Your task to perform on an android device: change the clock display to digital Image 0: 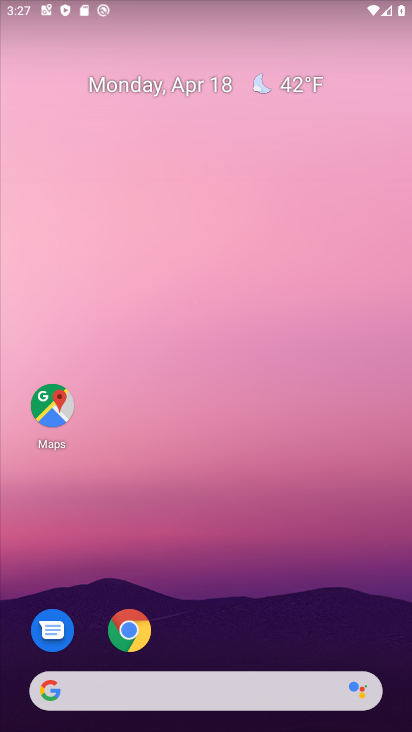
Step 0: drag from (265, 601) to (241, 216)
Your task to perform on an android device: change the clock display to digital Image 1: 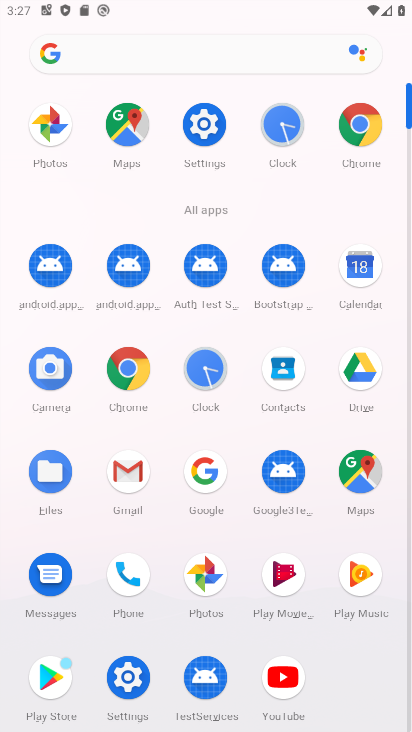
Step 1: click (288, 139)
Your task to perform on an android device: change the clock display to digital Image 2: 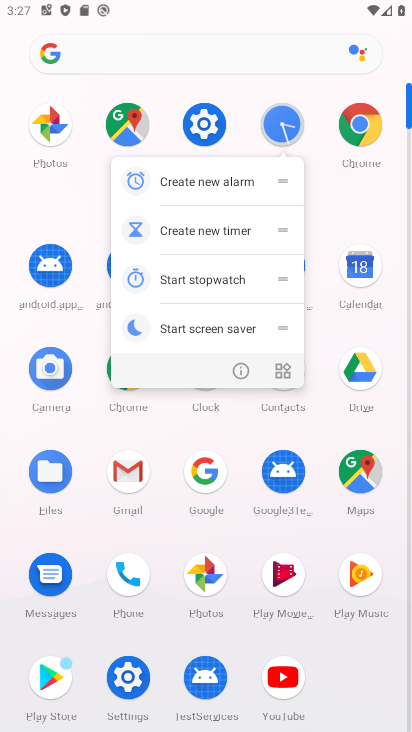
Step 2: click (278, 124)
Your task to perform on an android device: change the clock display to digital Image 3: 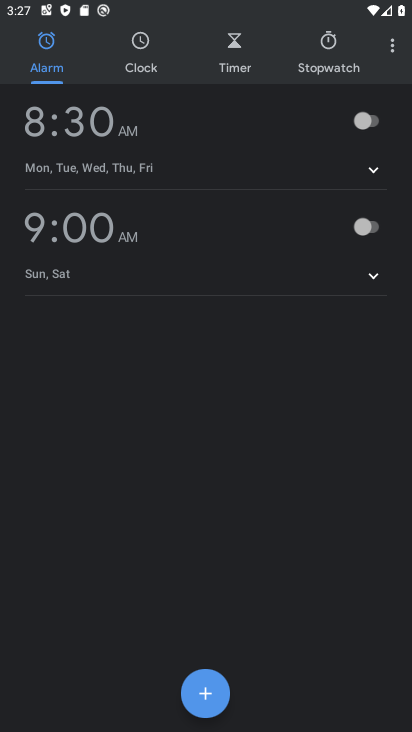
Step 3: click (394, 49)
Your task to perform on an android device: change the clock display to digital Image 4: 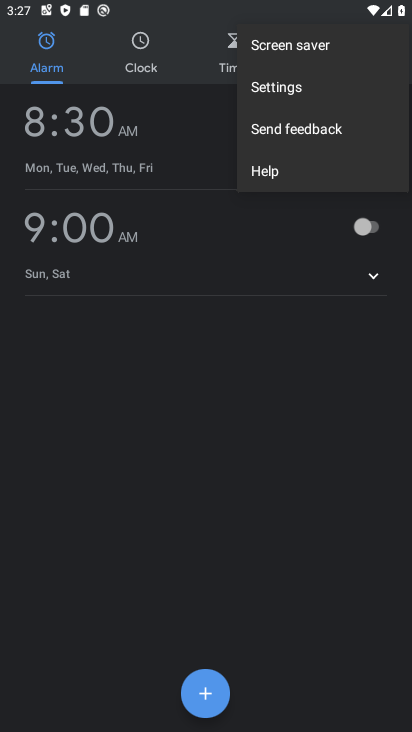
Step 4: click (294, 86)
Your task to perform on an android device: change the clock display to digital Image 5: 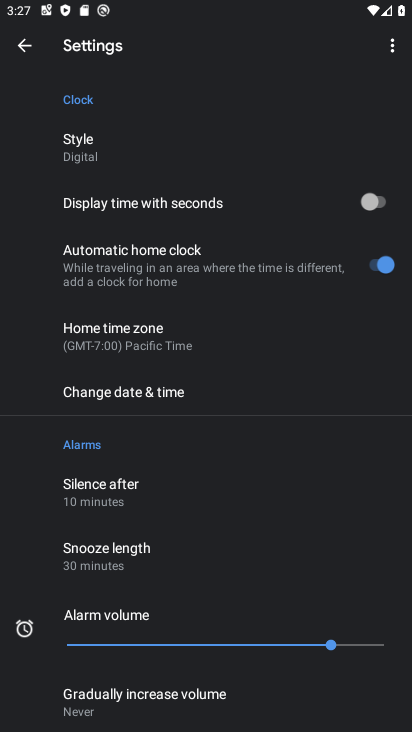
Step 5: click (184, 143)
Your task to perform on an android device: change the clock display to digital Image 6: 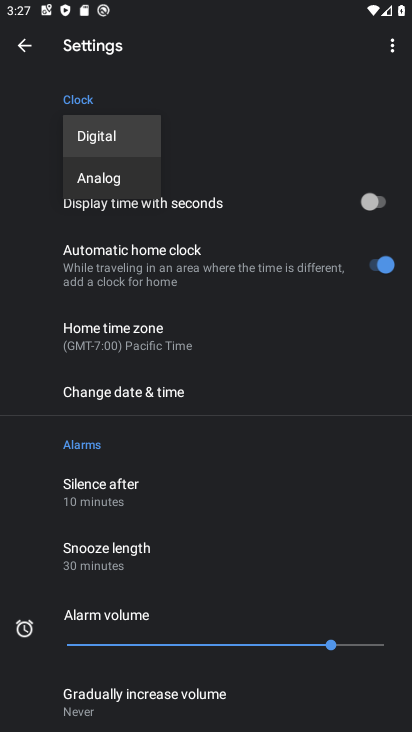
Step 6: task complete